Your task to perform on an android device: open chrome privacy settings Image 0: 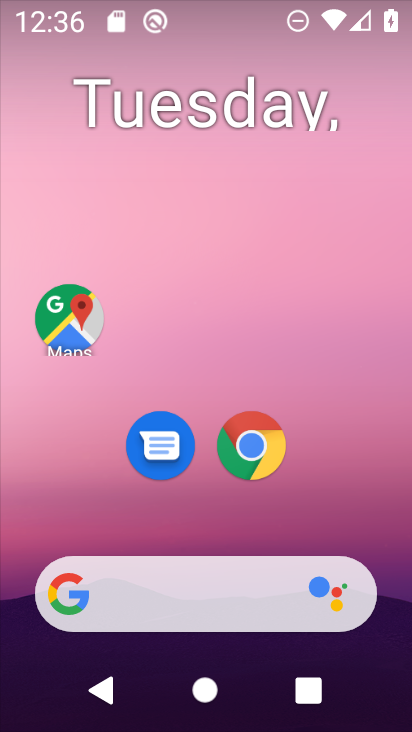
Step 0: drag from (390, 552) to (364, 230)
Your task to perform on an android device: open chrome privacy settings Image 1: 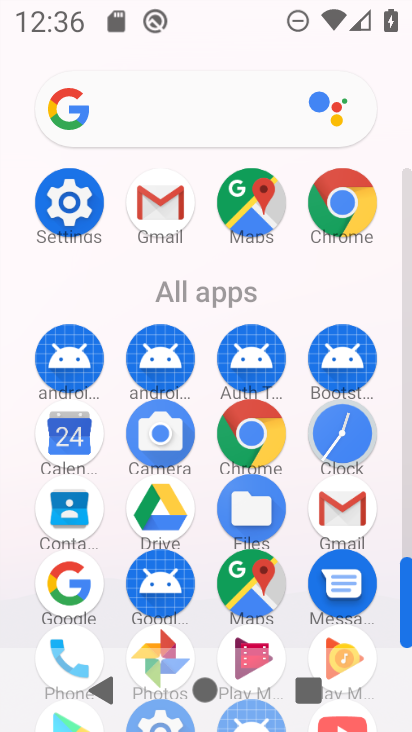
Step 1: click (343, 210)
Your task to perform on an android device: open chrome privacy settings Image 2: 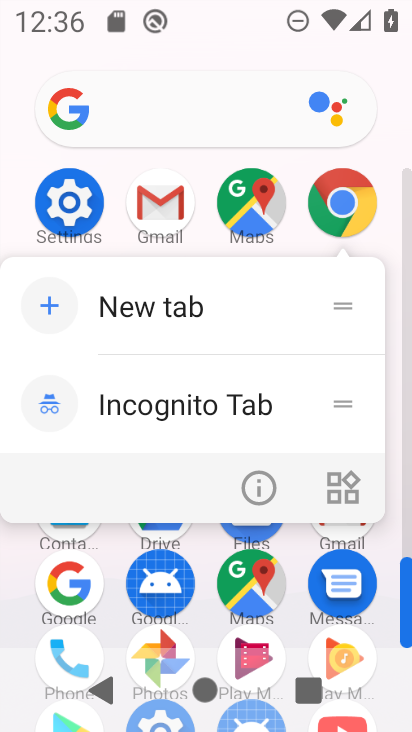
Step 2: click (343, 210)
Your task to perform on an android device: open chrome privacy settings Image 3: 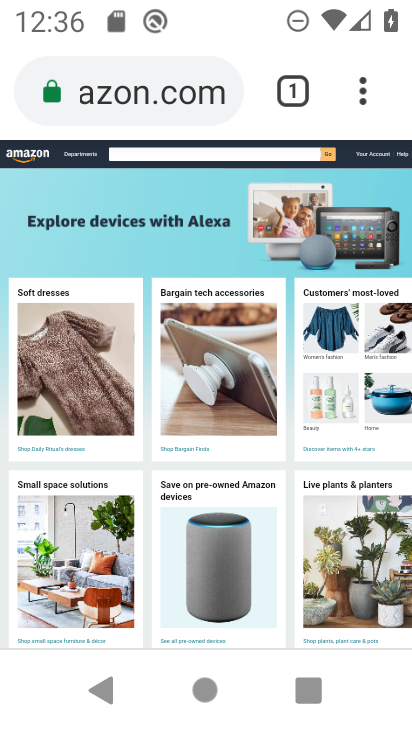
Step 3: click (363, 102)
Your task to perform on an android device: open chrome privacy settings Image 4: 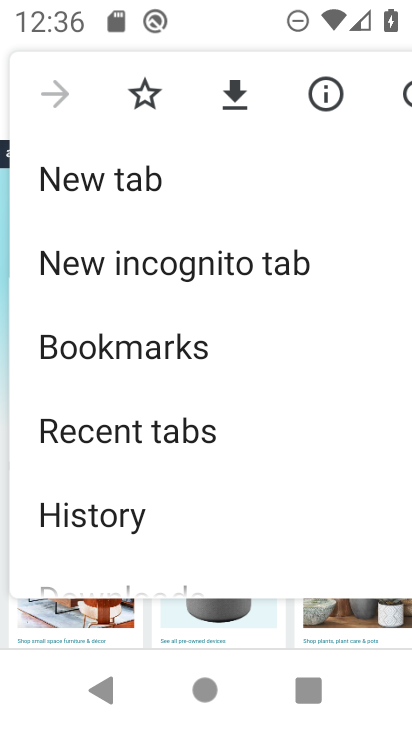
Step 4: drag from (340, 466) to (347, 339)
Your task to perform on an android device: open chrome privacy settings Image 5: 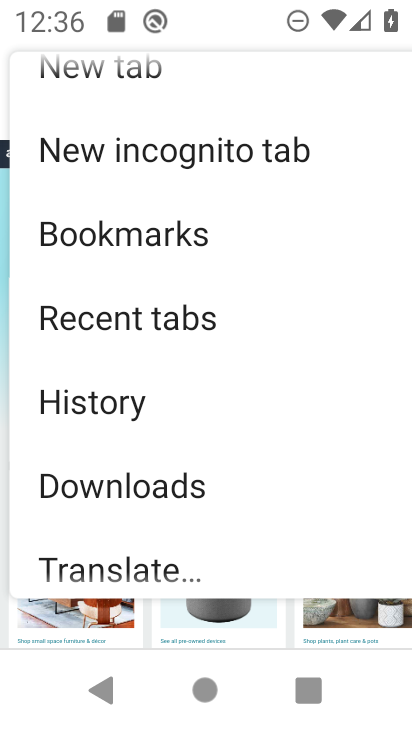
Step 5: drag from (352, 541) to (340, 410)
Your task to perform on an android device: open chrome privacy settings Image 6: 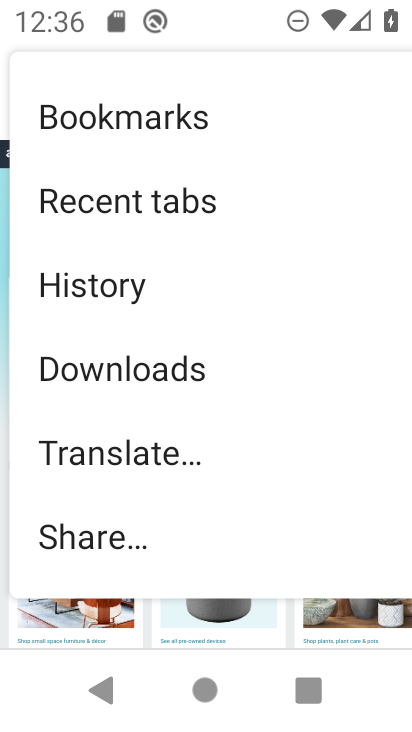
Step 6: drag from (344, 536) to (337, 393)
Your task to perform on an android device: open chrome privacy settings Image 7: 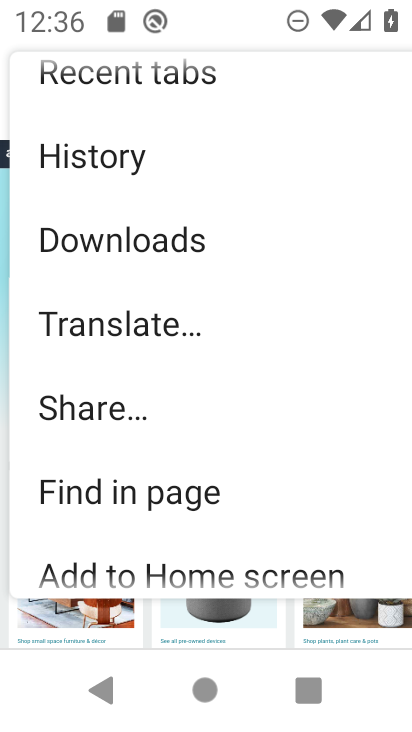
Step 7: drag from (344, 553) to (335, 421)
Your task to perform on an android device: open chrome privacy settings Image 8: 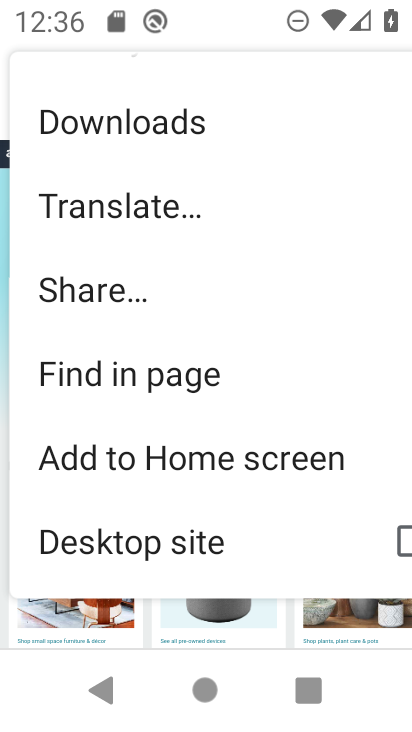
Step 8: drag from (331, 542) to (326, 389)
Your task to perform on an android device: open chrome privacy settings Image 9: 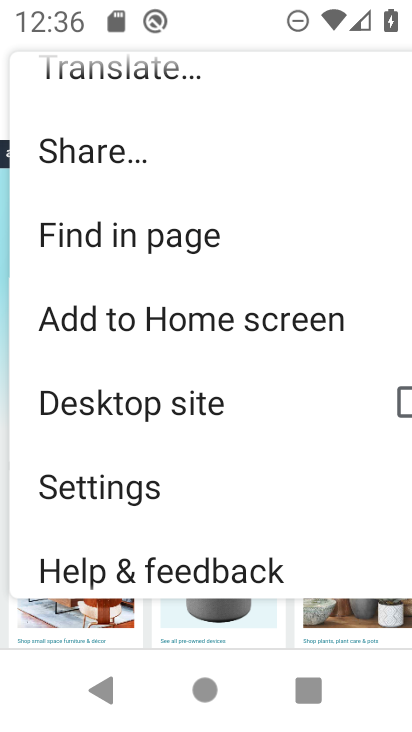
Step 9: drag from (316, 534) to (325, 423)
Your task to perform on an android device: open chrome privacy settings Image 10: 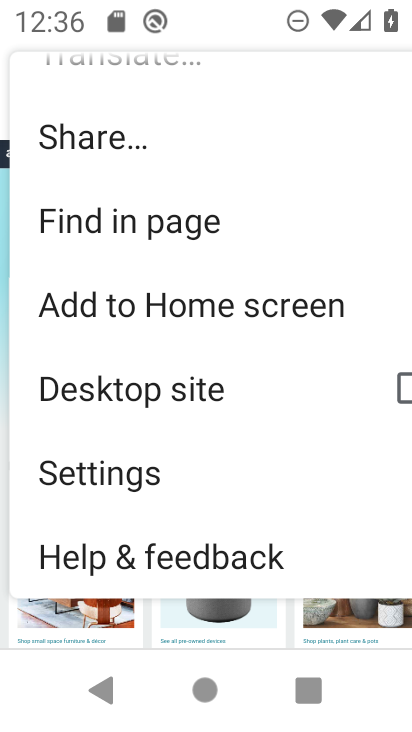
Step 10: click (152, 468)
Your task to perform on an android device: open chrome privacy settings Image 11: 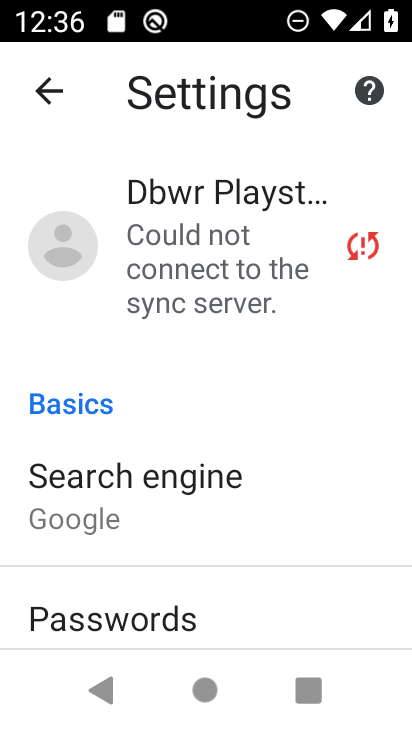
Step 11: drag from (338, 597) to (341, 494)
Your task to perform on an android device: open chrome privacy settings Image 12: 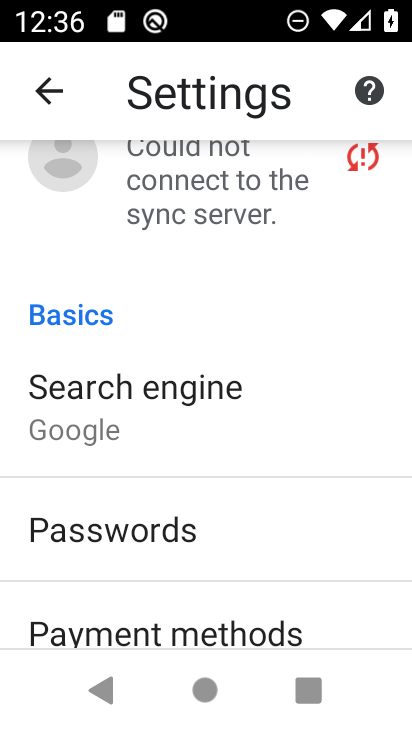
Step 12: drag from (367, 605) to (365, 500)
Your task to perform on an android device: open chrome privacy settings Image 13: 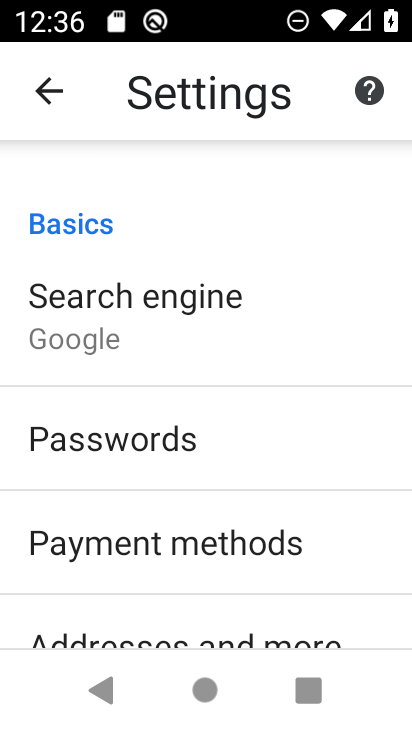
Step 13: drag from (360, 607) to (358, 477)
Your task to perform on an android device: open chrome privacy settings Image 14: 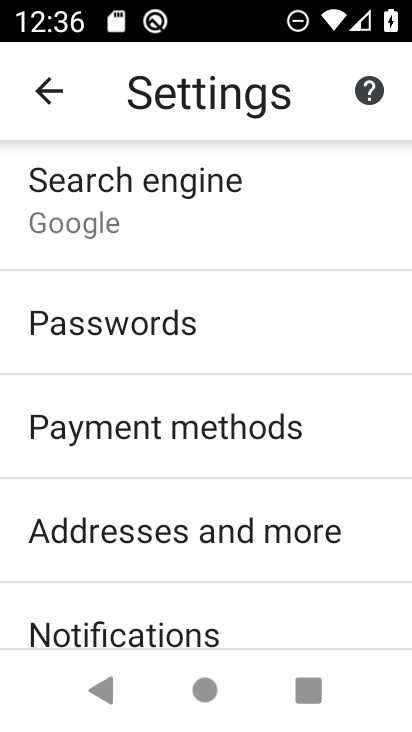
Step 14: drag from (375, 600) to (362, 491)
Your task to perform on an android device: open chrome privacy settings Image 15: 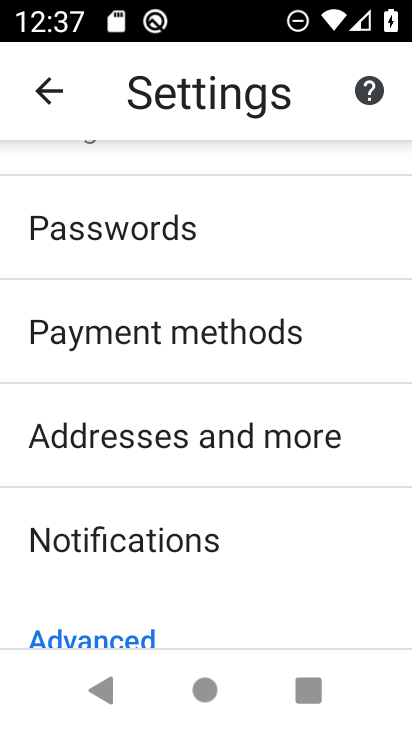
Step 15: drag from (376, 589) to (369, 491)
Your task to perform on an android device: open chrome privacy settings Image 16: 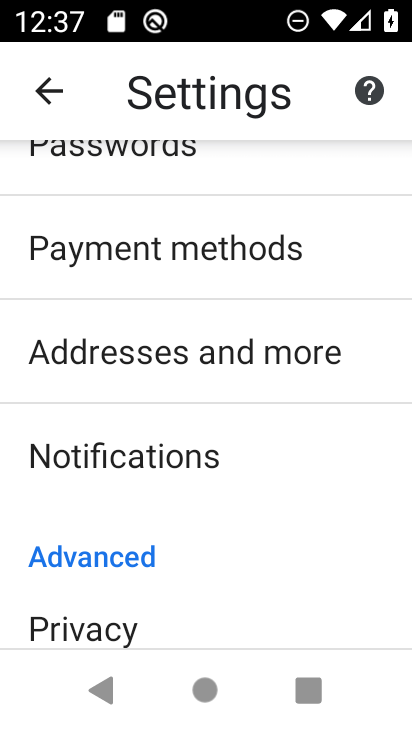
Step 16: drag from (364, 588) to (370, 482)
Your task to perform on an android device: open chrome privacy settings Image 17: 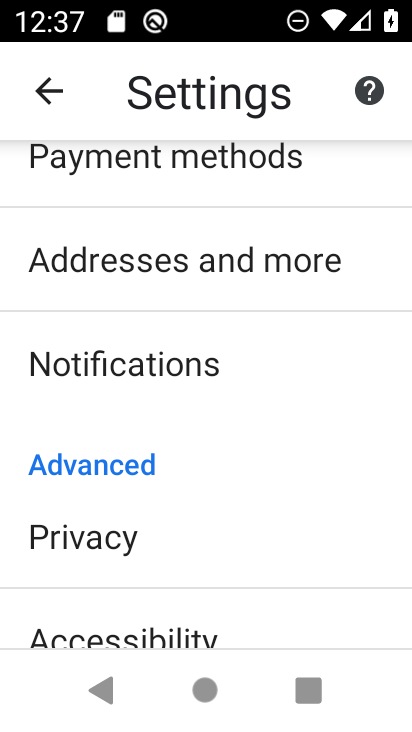
Step 17: drag from (384, 606) to (375, 492)
Your task to perform on an android device: open chrome privacy settings Image 18: 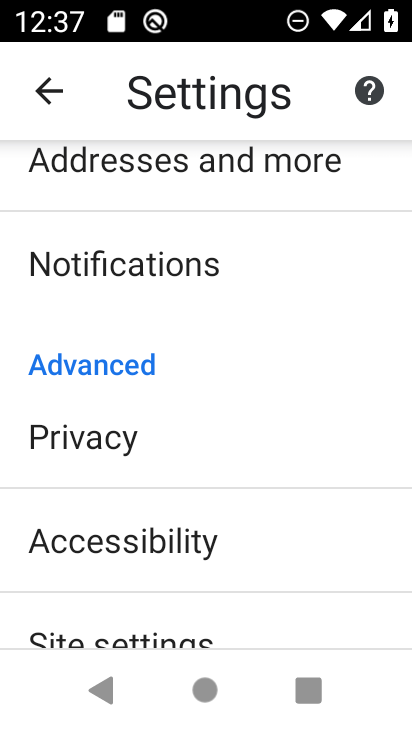
Step 18: click (206, 457)
Your task to perform on an android device: open chrome privacy settings Image 19: 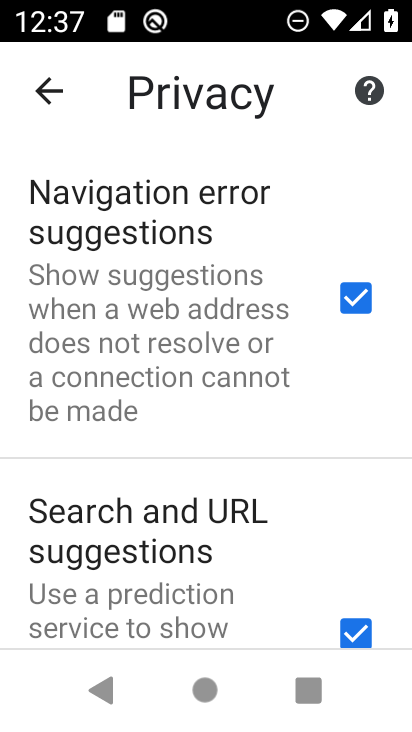
Step 19: task complete